Your task to perform on an android device: turn off sleep mode Image 0: 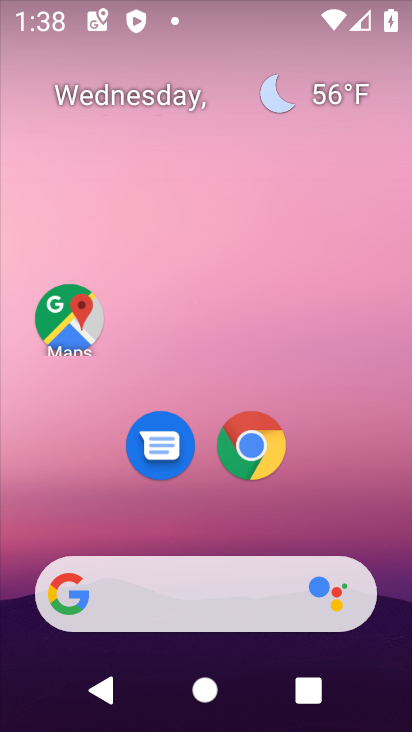
Step 0: drag from (236, 540) to (15, 706)
Your task to perform on an android device: turn off sleep mode Image 1: 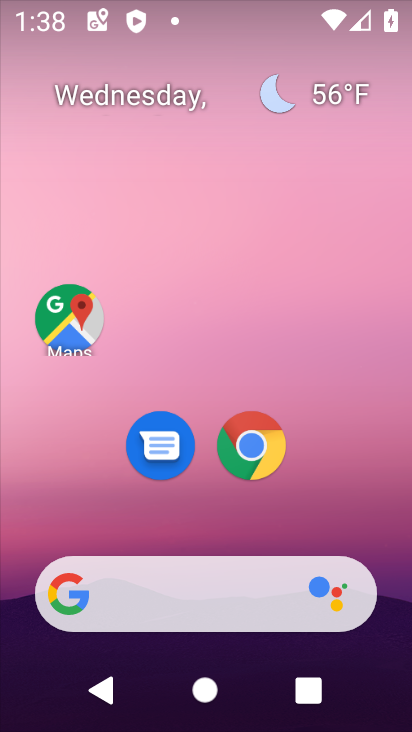
Step 1: drag from (184, 535) to (135, 9)
Your task to perform on an android device: turn off sleep mode Image 2: 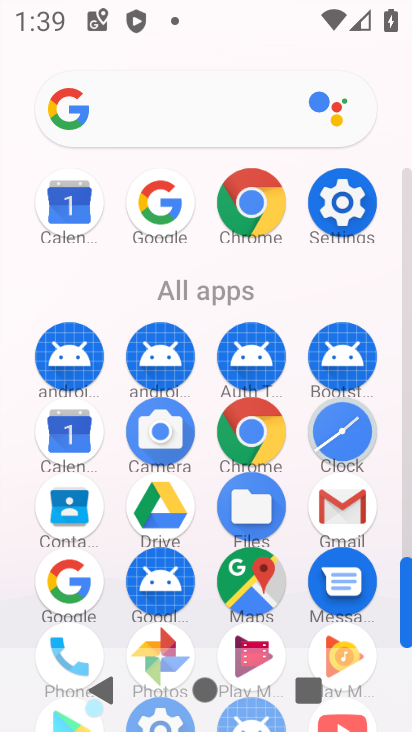
Step 2: click (340, 183)
Your task to perform on an android device: turn off sleep mode Image 3: 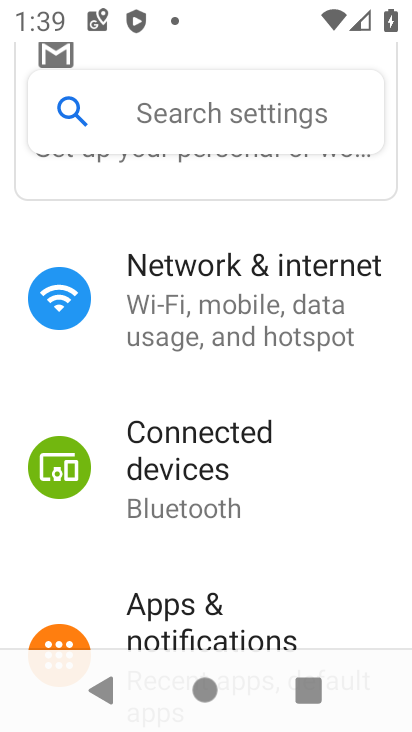
Step 3: task complete